Your task to perform on an android device: install app "Pinterest" Image 0: 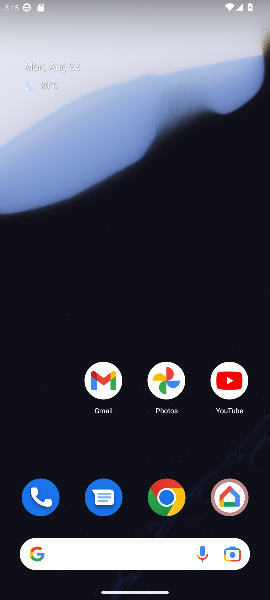
Step 0: drag from (44, 419) to (51, 99)
Your task to perform on an android device: install app "Pinterest" Image 1: 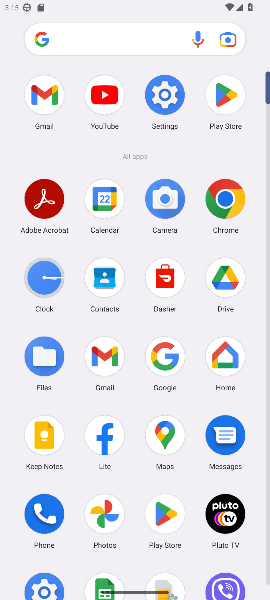
Step 1: click (221, 92)
Your task to perform on an android device: install app "Pinterest" Image 2: 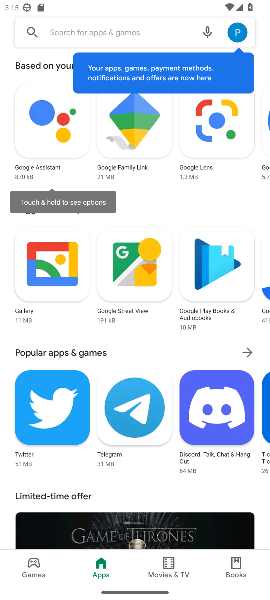
Step 2: click (119, 32)
Your task to perform on an android device: install app "Pinterest" Image 3: 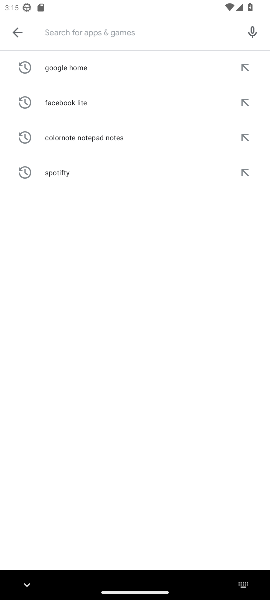
Step 3: press enter
Your task to perform on an android device: install app "Pinterest" Image 4: 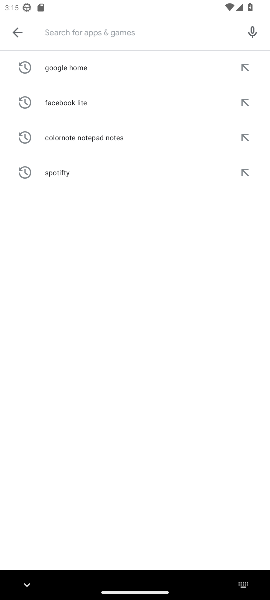
Step 4: type "pinterest"
Your task to perform on an android device: install app "Pinterest" Image 5: 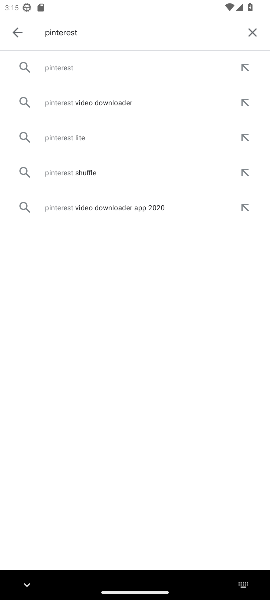
Step 5: click (77, 63)
Your task to perform on an android device: install app "Pinterest" Image 6: 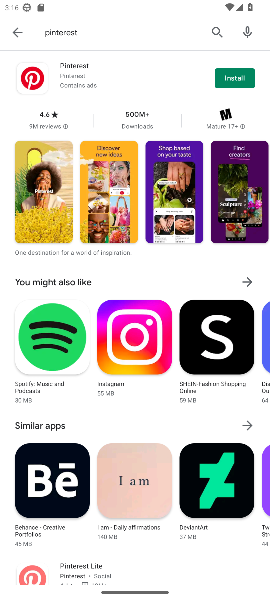
Step 6: click (243, 81)
Your task to perform on an android device: install app "Pinterest" Image 7: 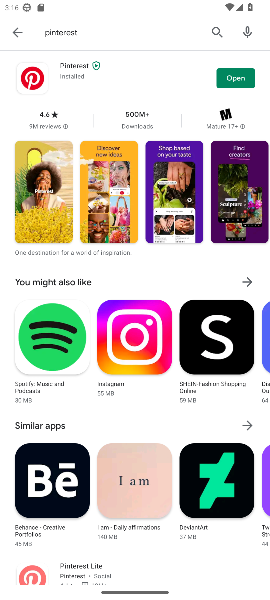
Step 7: task complete